Your task to perform on an android device: turn notification dots on Image 0: 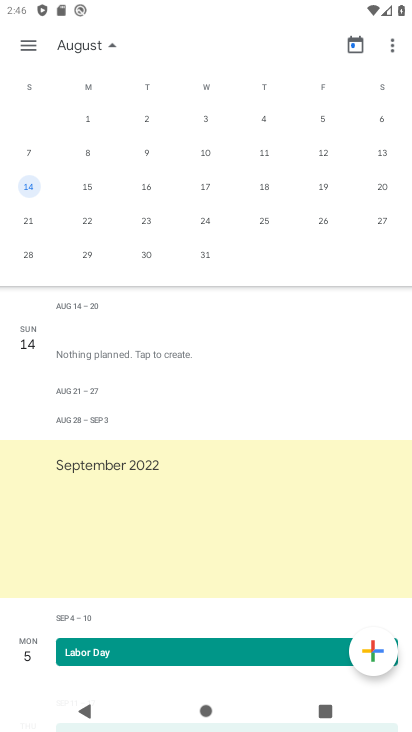
Step 0: press home button
Your task to perform on an android device: turn notification dots on Image 1: 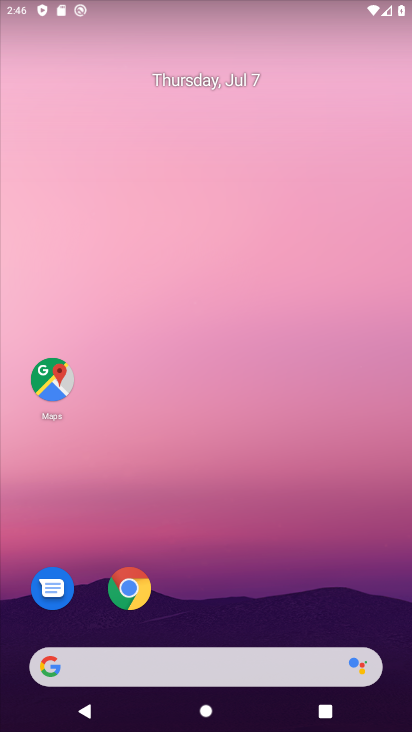
Step 1: drag from (227, 647) to (202, 182)
Your task to perform on an android device: turn notification dots on Image 2: 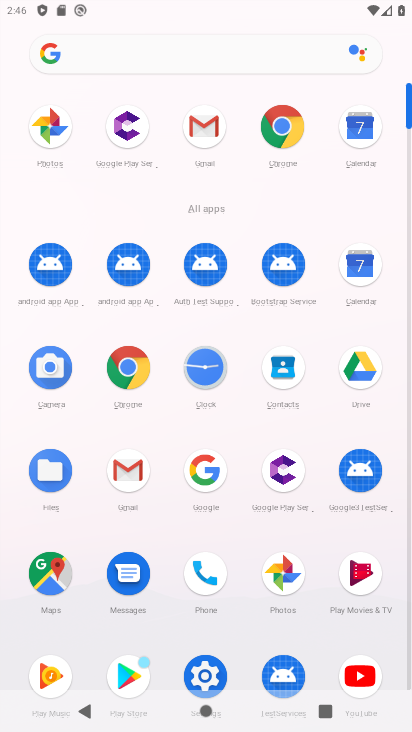
Step 2: click (209, 654)
Your task to perform on an android device: turn notification dots on Image 3: 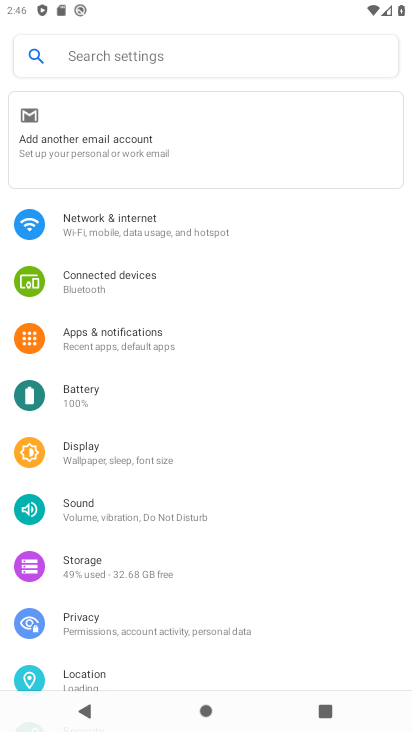
Step 3: click (137, 344)
Your task to perform on an android device: turn notification dots on Image 4: 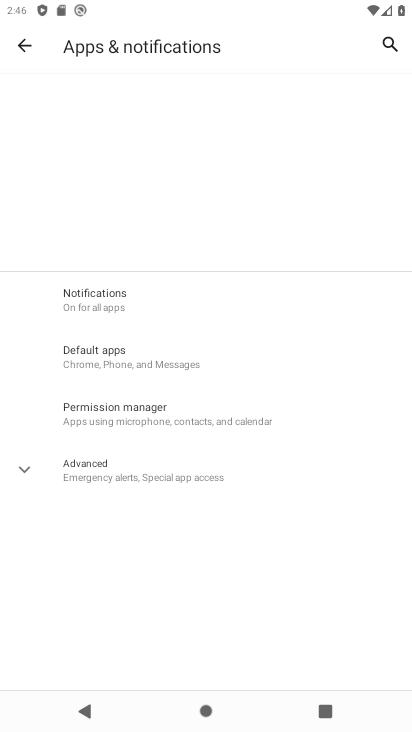
Step 4: click (108, 306)
Your task to perform on an android device: turn notification dots on Image 5: 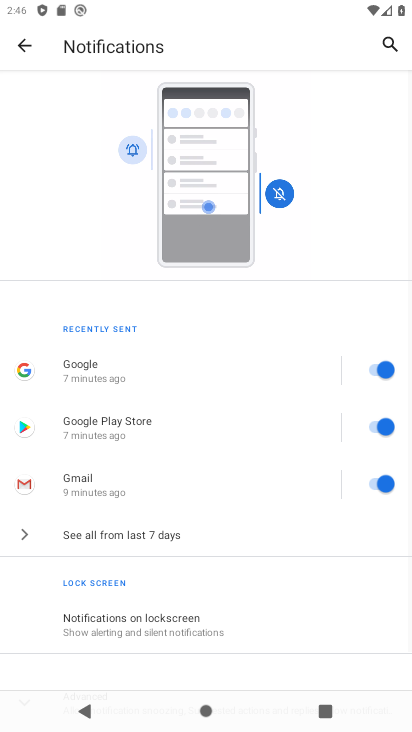
Step 5: drag from (159, 472) to (155, 241)
Your task to perform on an android device: turn notification dots on Image 6: 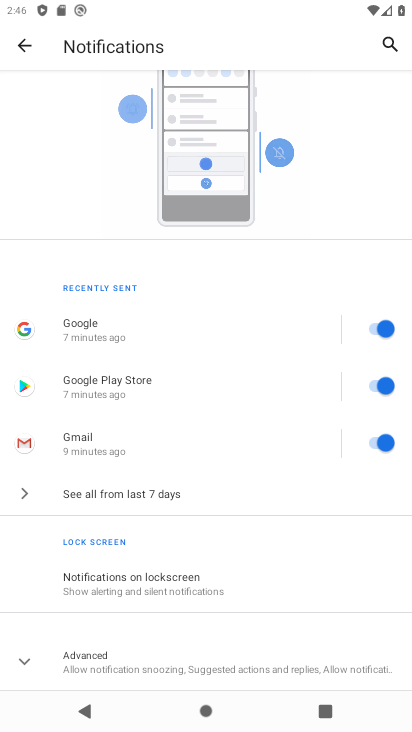
Step 6: click (75, 664)
Your task to perform on an android device: turn notification dots on Image 7: 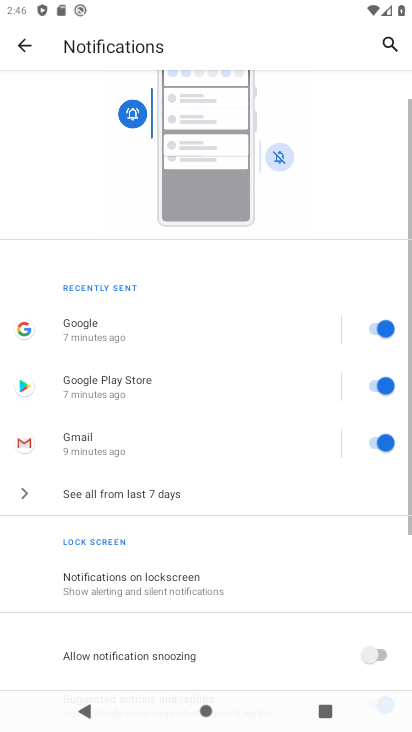
Step 7: task complete